Your task to perform on an android device: allow notifications from all sites in the chrome app Image 0: 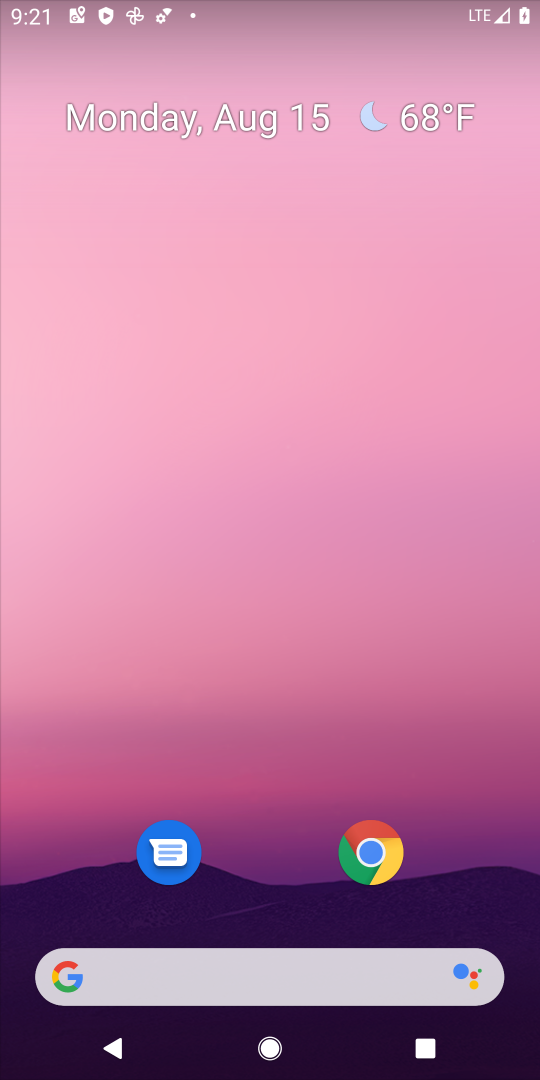
Step 0: click (371, 853)
Your task to perform on an android device: allow notifications from all sites in the chrome app Image 1: 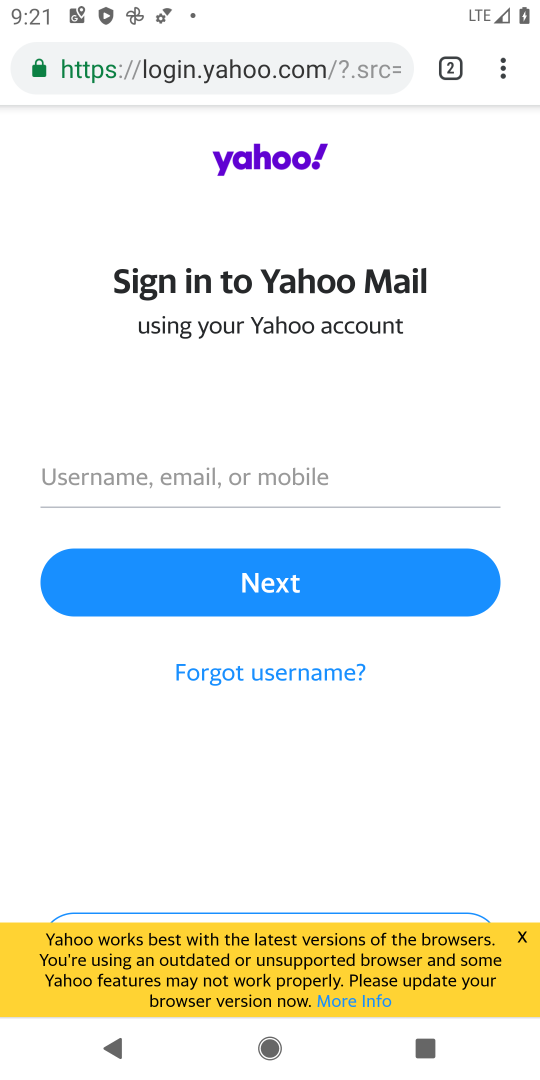
Step 1: drag from (506, 68) to (264, 888)
Your task to perform on an android device: allow notifications from all sites in the chrome app Image 2: 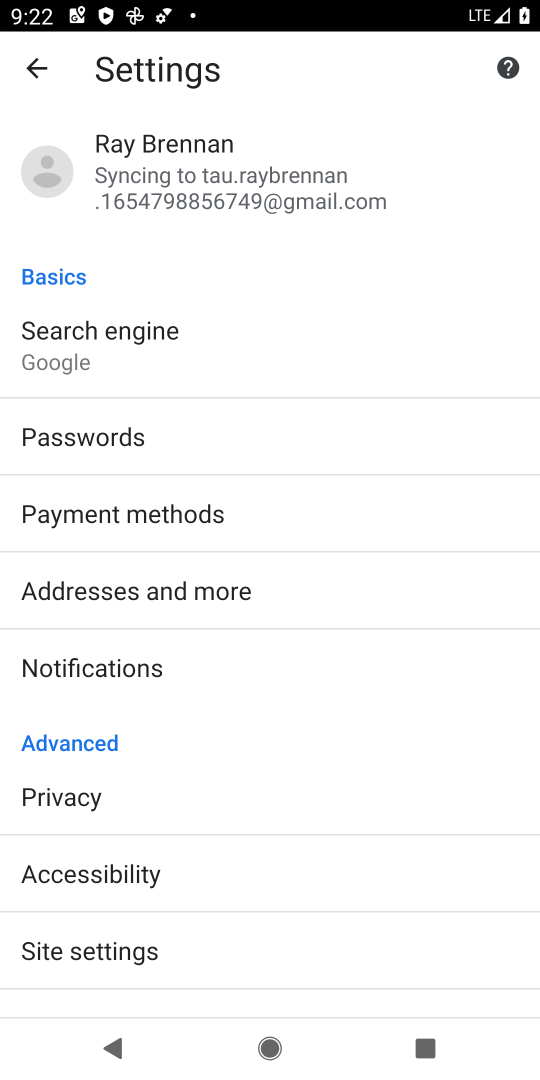
Step 2: click (150, 665)
Your task to perform on an android device: allow notifications from all sites in the chrome app Image 3: 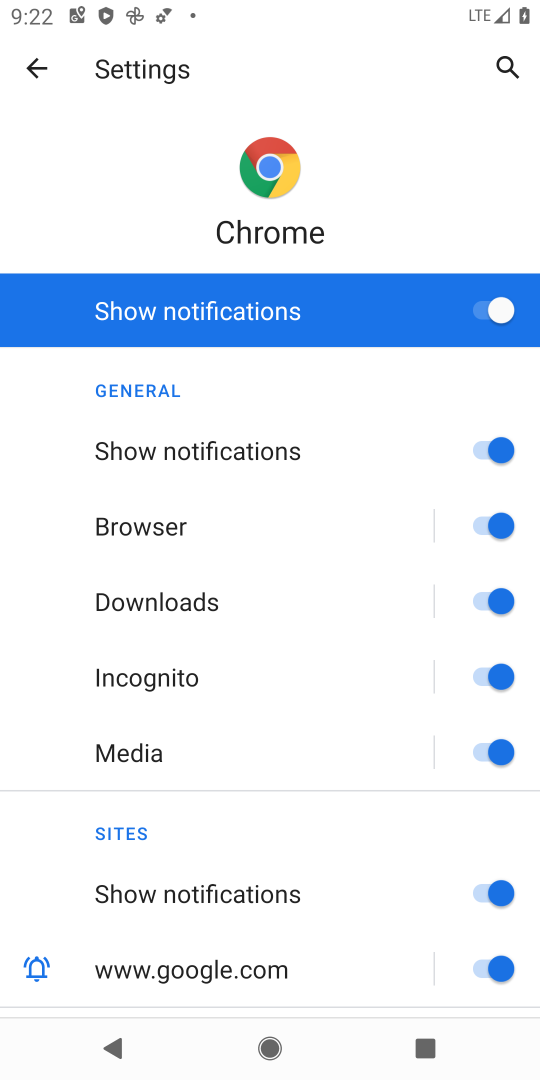
Step 3: task complete